Your task to perform on an android device: turn on wifi Image 0: 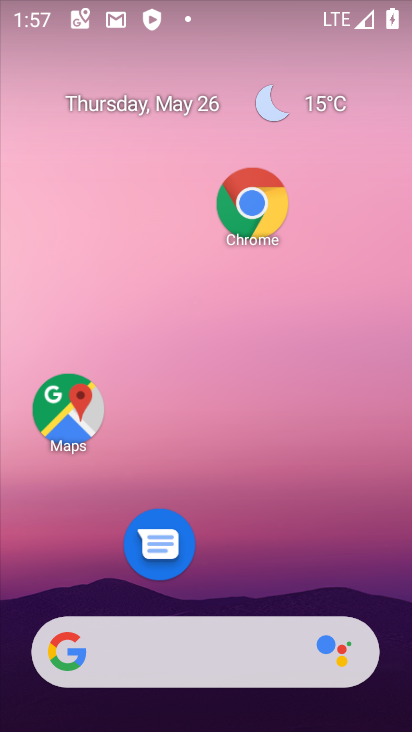
Step 0: drag from (276, 722) to (217, 73)
Your task to perform on an android device: turn on wifi Image 1: 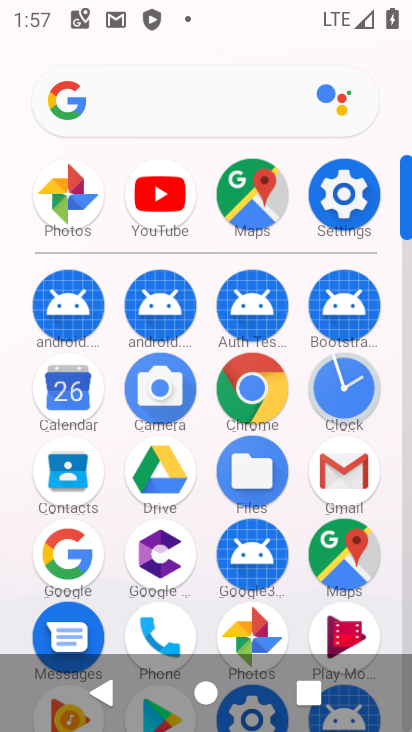
Step 1: click (353, 193)
Your task to perform on an android device: turn on wifi Image 2: 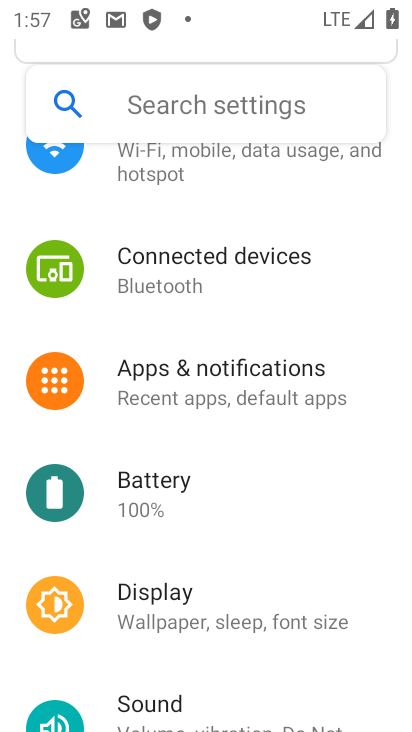
Step 2: click (332, 165)
Your task to perform on an android device: turn on wifi Image 3: 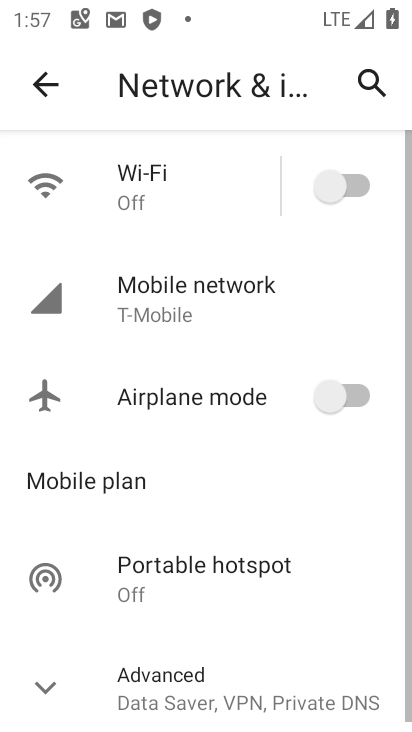
Step 3: click (339, 182)
Your task to perform on an android device: turn on wifi Image 4: 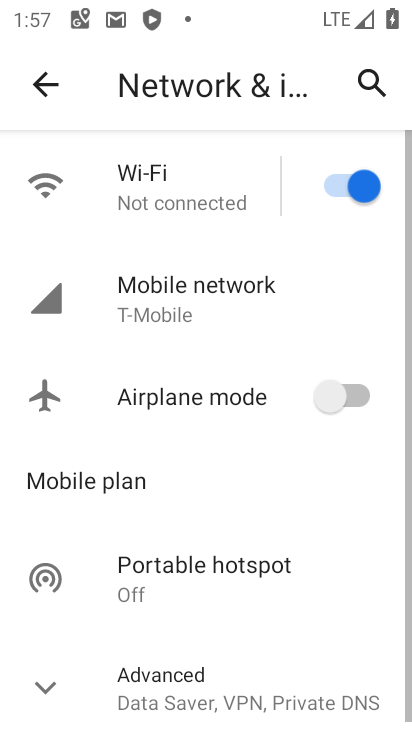
Step 4: task complete